Your task to perform on an android device: Add usb-c to the cart on bestbuy.com Image 0: 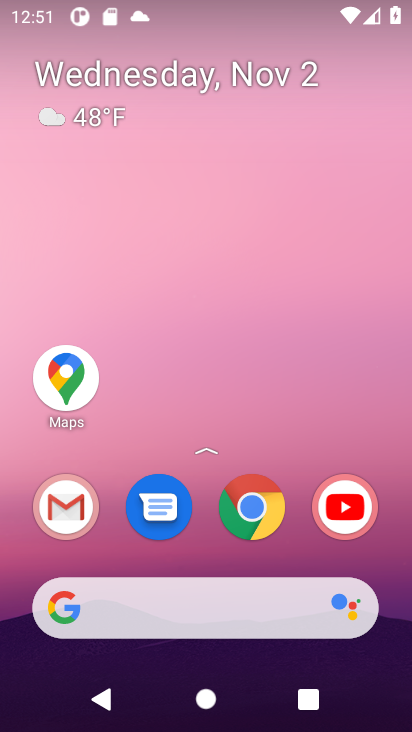
Step 0: click (187, 617)
Your task to perform on an android device: Add usb-c to the cart on bestbuy.com Image 1: 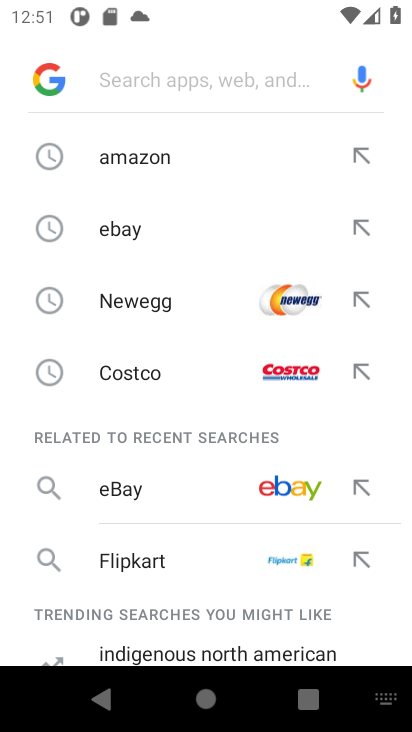
Step 1: type "bestbuy.com"
Your task to perform on an android device: Add usb-c to the cart on bestbuy.com Image 2: 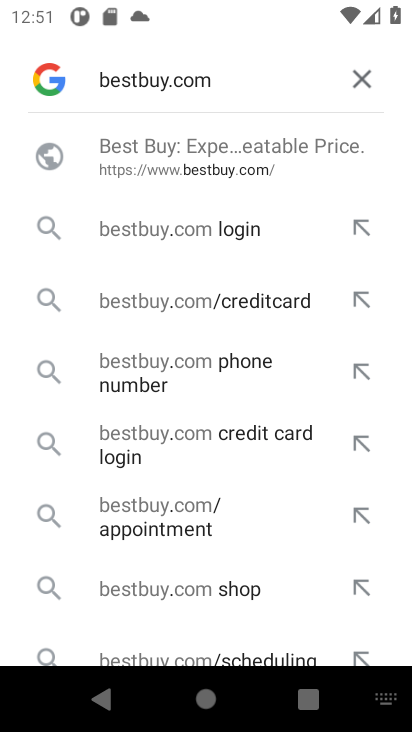
Step 2: click (197, 162)
Your task to perform on an android device: Add usb-c to the cart on bestbuy.com Image 3: 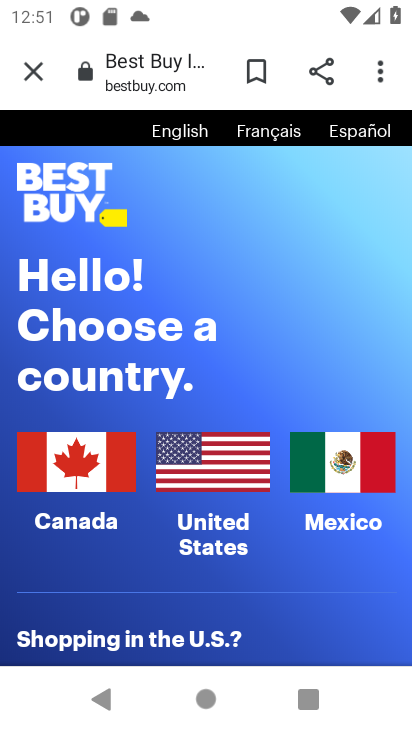
Step 3: click (228, 465)
Your task to perform on an android device: Add usb-c to the cart on bestbuy.com Image 4: 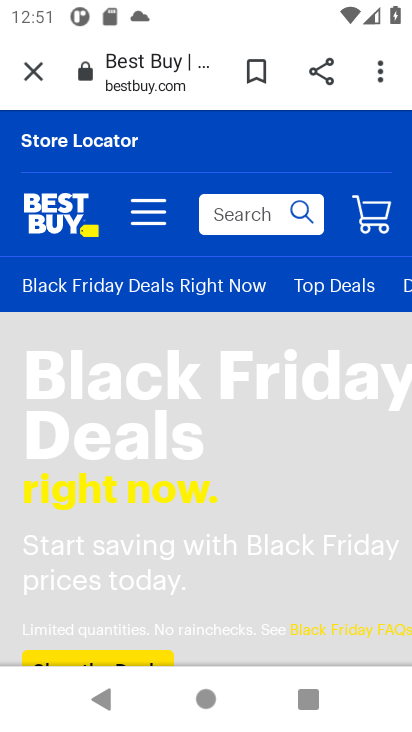
Step 4: click (227, 207)
Your task to perform on an android device: Add usb-c to the cart on bestbuy.com Image 5: 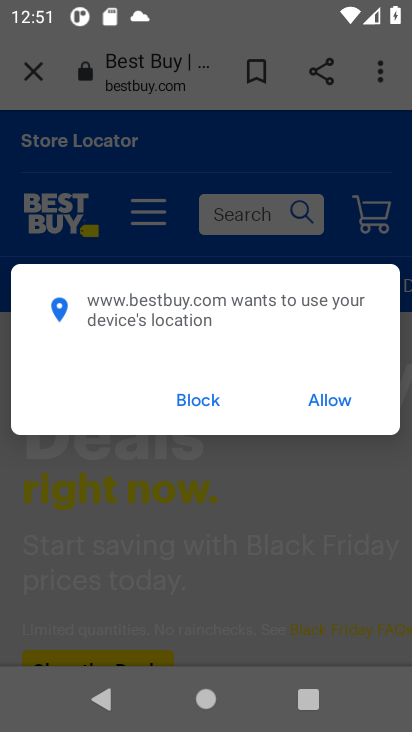
Step 5: click (307, 388)
Your task to perform on an android device: Add usb-c to the cart on bestbuy.com Image 6: 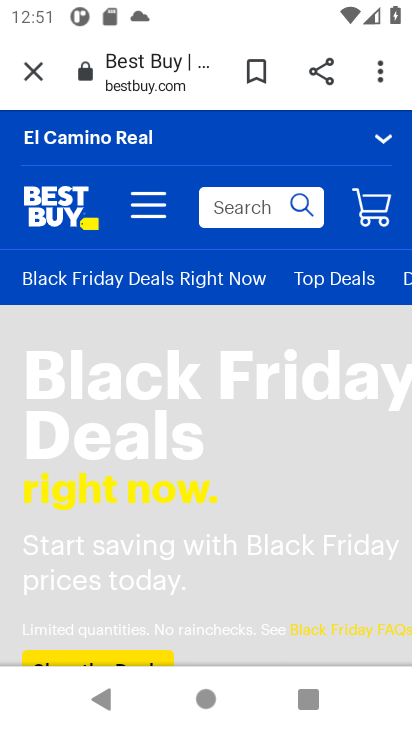
Step 6: click (226, 210)
Your task to perform on an android device: Add usb-c to the cart on bestbuy.com Image 7: 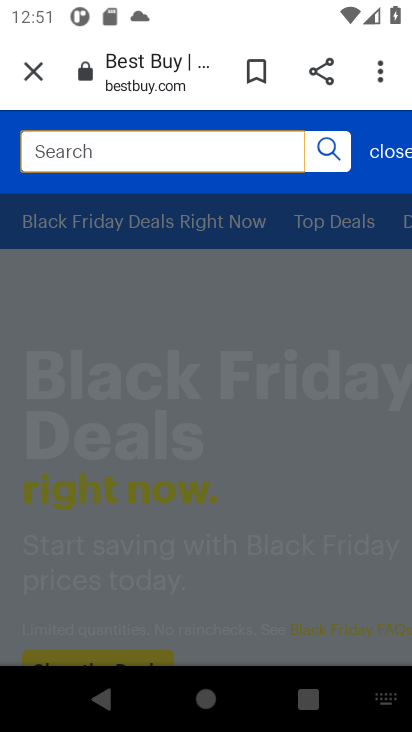
Step 7: type "usb-c"
Your task to perform on an android device: Add usb-c to the cart on bestbuy.com Image 8: 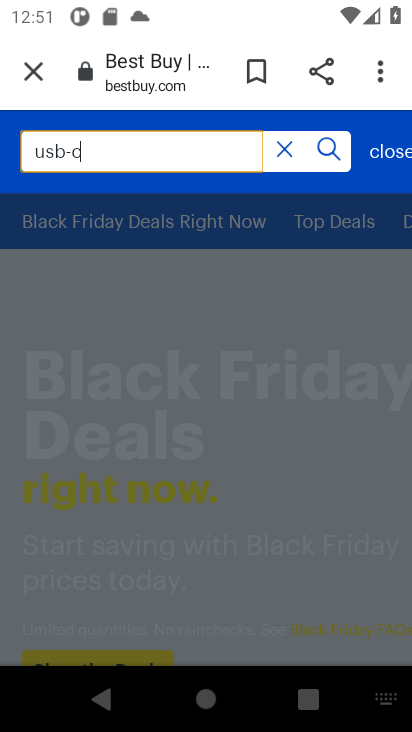
Step 8: type ""
Your task to perform on an android device: Add usb-c to the cart on bestbuy.com Image 9: 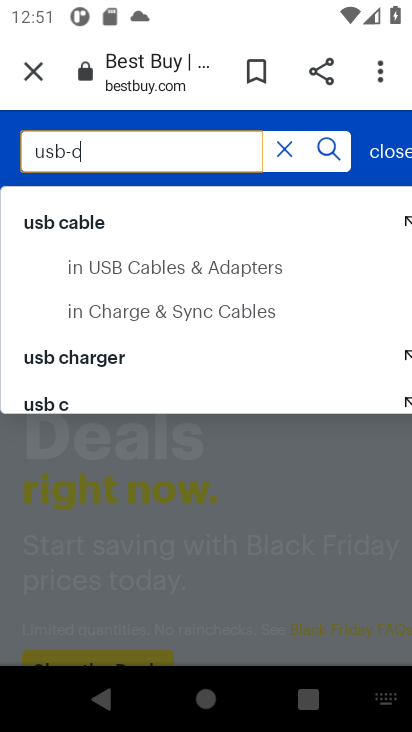
Step 9: click (49, 398)
Your task to perform on an android device: Add usb-c to the cart on bestbuy.com Image 10: 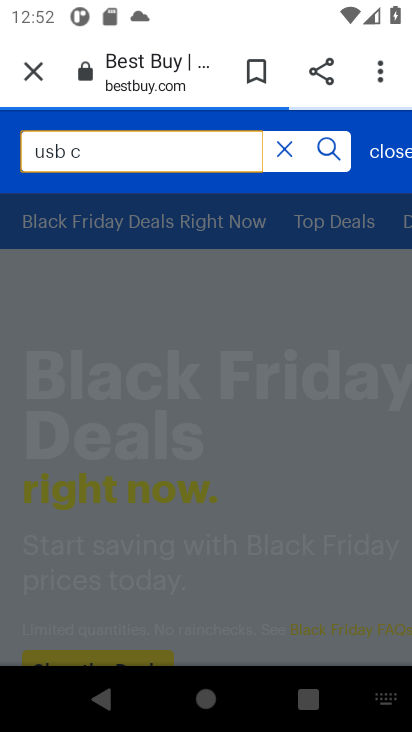
Step 10: click (320, 147)
Your task to perform on an android device: Add usb-c to the cart on bestbuy.com Image 11: 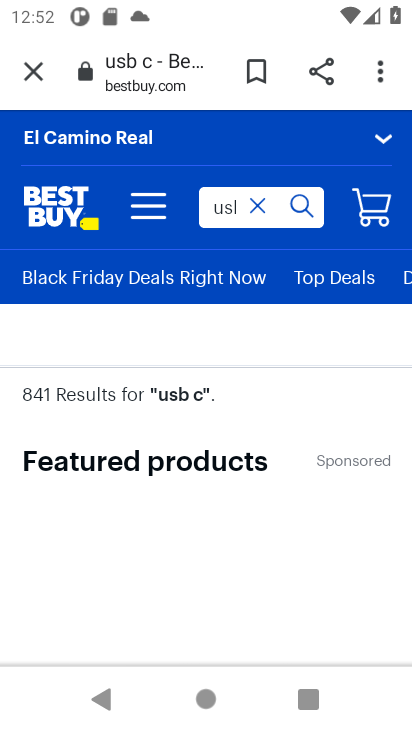
Step 11: drag from (313, 537) to (310, 335)
Your task to perform on an android device: Add usb-c to the cart on bestbuy.com Image 12: 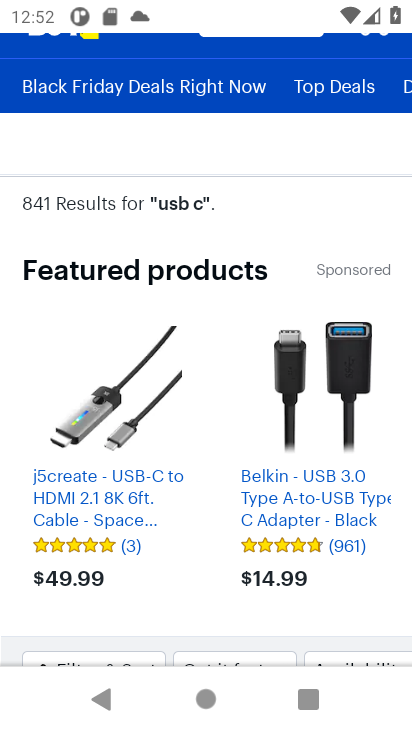
Step 12: drag from (178, 532) to (172, 265)
Your task to perform on an android device: Add usb-c to the cart on bestbuy.com Image 13: 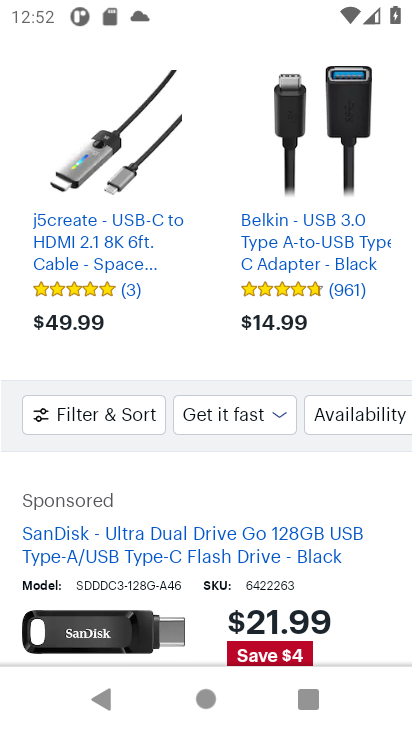
Step 13: click (114, 164)
Your task to perform on an android device: Add usb-c to the cart on bestbuy.com Image 14: 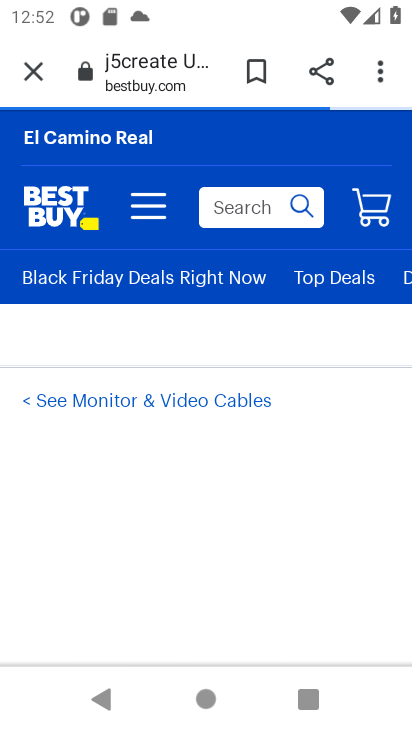
Step 14: drag from (225, 546) to (266, 201)
Your task to perform on an android device: Add usb-c to the cart on bestbuy.com Image 15: 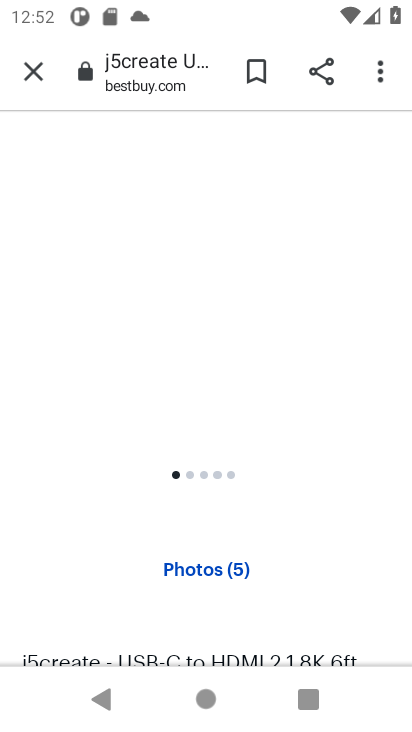
Step 15: drag from (264, 439) to (240, 150)
Your task to perform on an android device: Add usb-c to the cart on bestbuy.com Image 16: 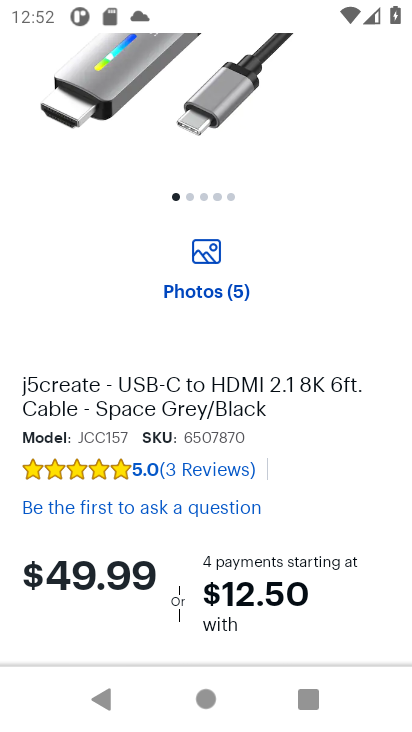
Step 16: drag from (231, 469) to (253, 161)
Your task to perform on an android device: Add usb-c to the cart on bestbuy.com Image 17: 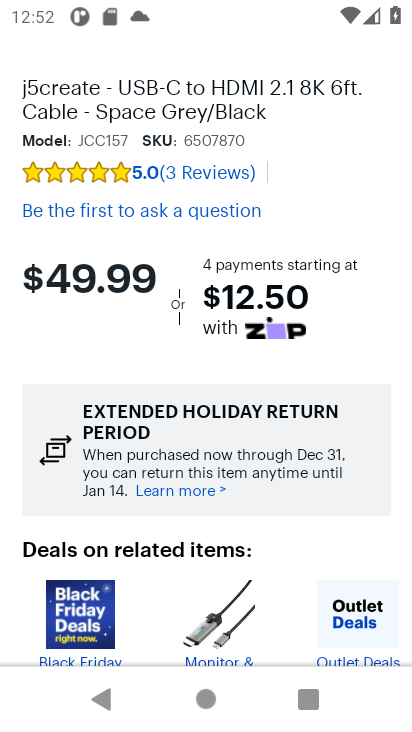
Step 17: drag from (262, 463) to (281, 152)
Your task to perform on an android device: Add usb-c to the cart on bestbuy.com Image 18: 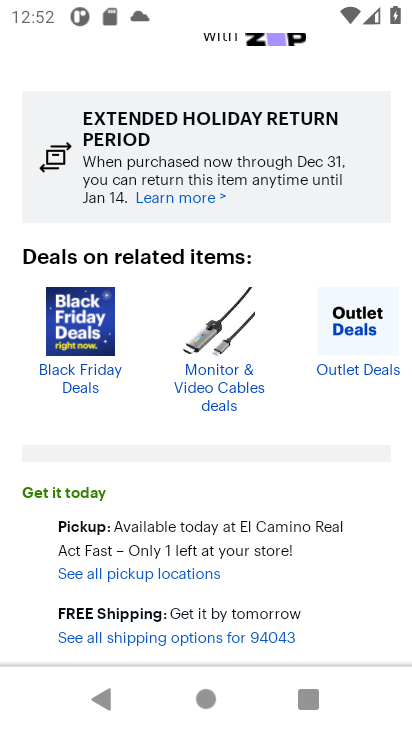
Step 18: drag from (224, 467) to (245, 161)
Your task to perform on an android device: Add usb-c to the cart on bestbuy.com Image 19: 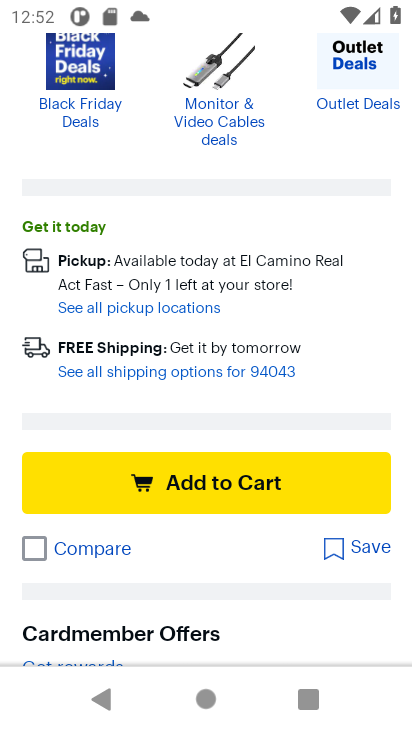
Step 19: click (240, 463)
Your task to perform on an android device: Add usb-c to the cart on bestbuy.com Image 20: 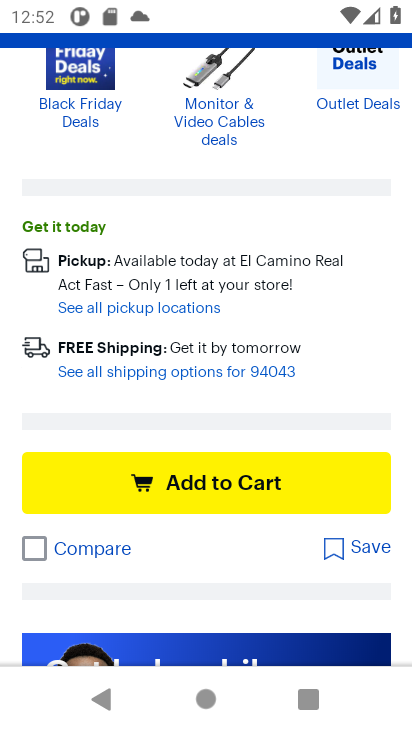
Step 20: task complete